Your task to perform on an android device: Show me the alarms in the clock app Image 0: 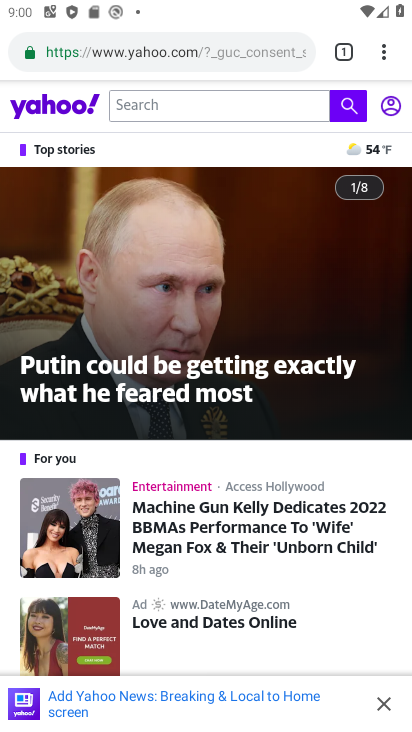
Step 0: press back button
Your task to perform on an android device: Show me the alarms in the clock app Image 1: 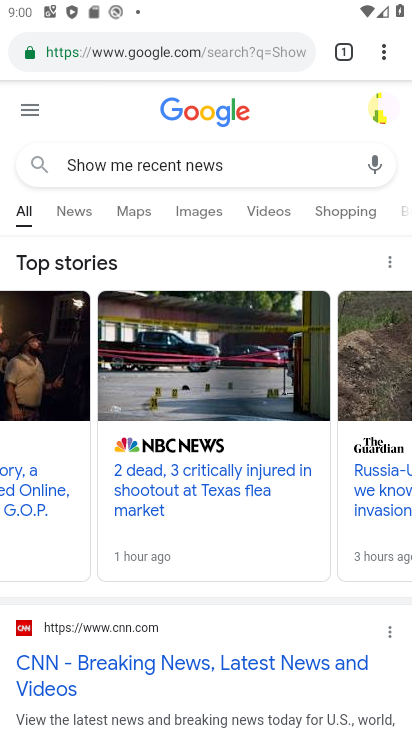
Step 1: press home button
Your task to perform on an android device: Show me the alarms in the clock app Image 2: 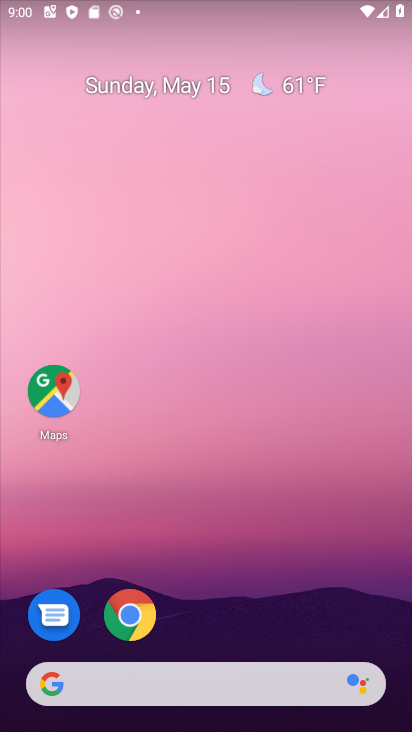
Step 2: drag from (237, 509) to (234, 0)
Your task to perform on an android device: Show me the alarms in the clock app Image 3: 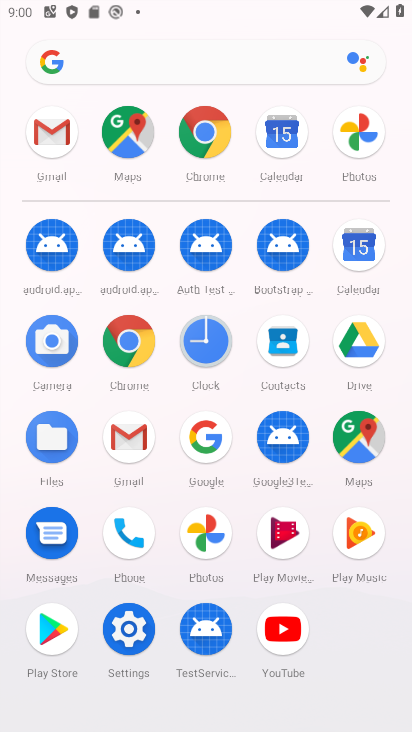
Step 3: drag from (0, 554) to (0, 290)
Your task to perform on an android device: Show me the alarms in the clock app Image 4: 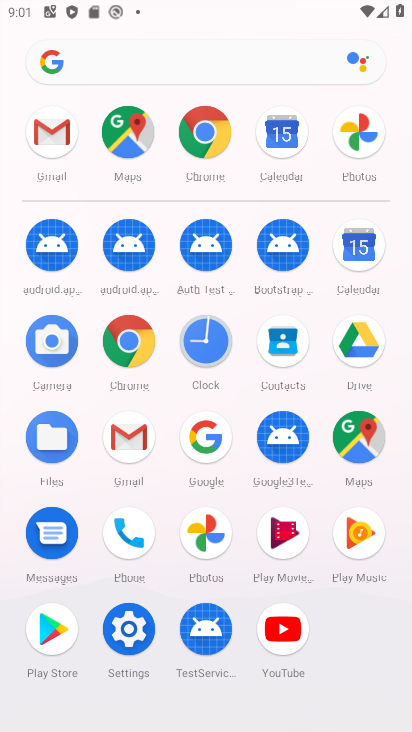
Step 4: click (207, 340)
Your task to perform on an android device: Show me the alarms in the clock app Image 5: 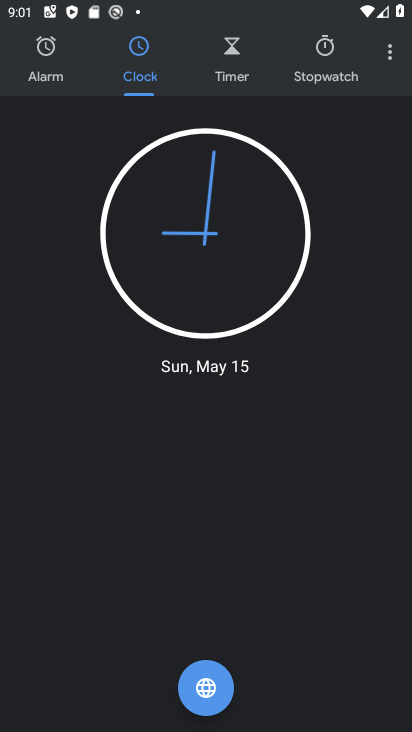
Step 5: click (46, 61)
Your task to perform on an android device: Show me the alarms in the clock app Image 6: 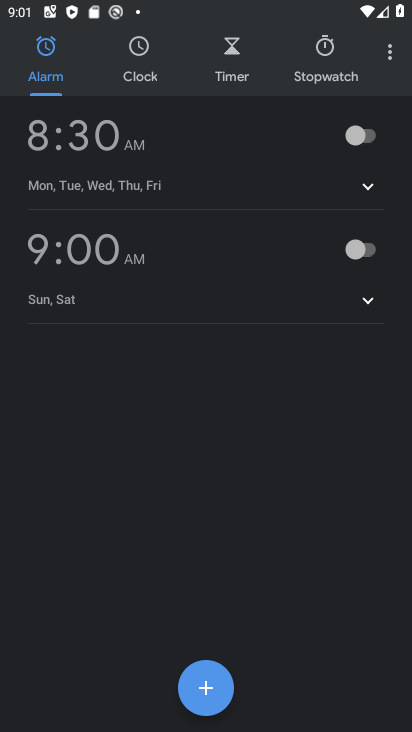
Step 6: task complete